Your task to perform on an android device: Open eBay Image 0: 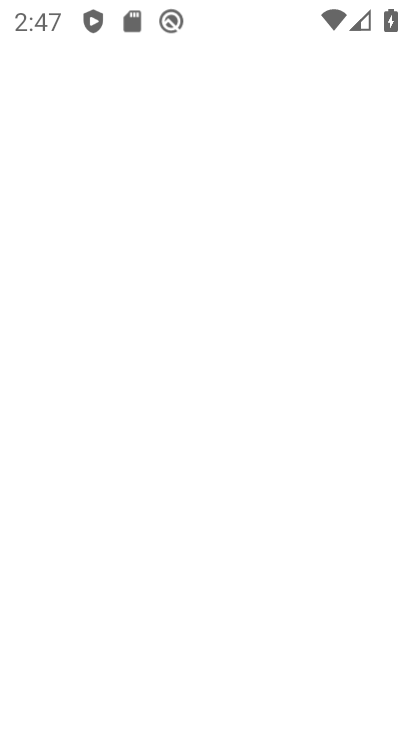
Step 0: drag from (319, 508) to (316, 318)
Your task to perform on an android device: Open eBay Image 1: 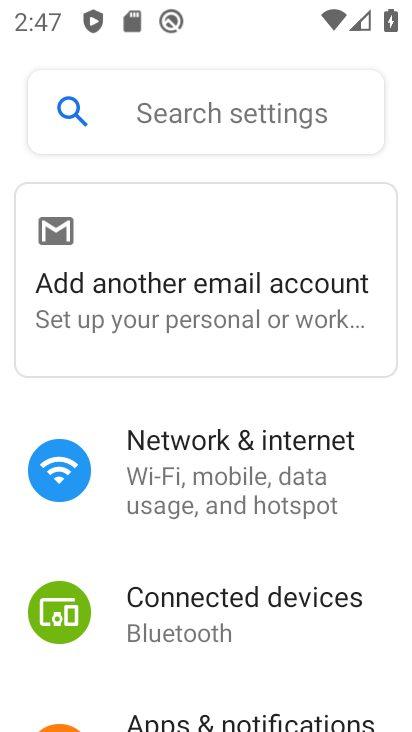
Step 1: press home button
Your task to perform on an android device: Open eBay Image 2: 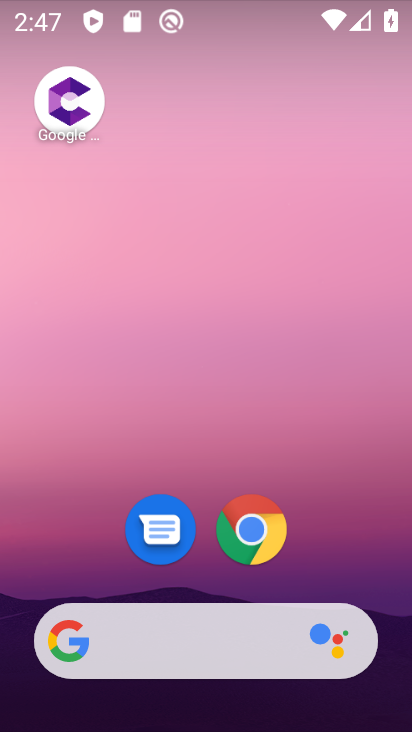
Step 2: drag from (262, 615) to (254, 183)
Your task to perform on an android device: Open eBay Image 3: 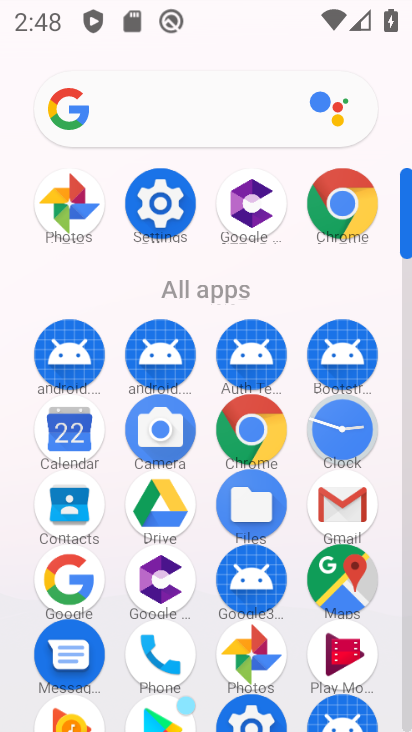
Step 3: click (353, 209)
Your task to perform on an android device: Open eBay Image 4: 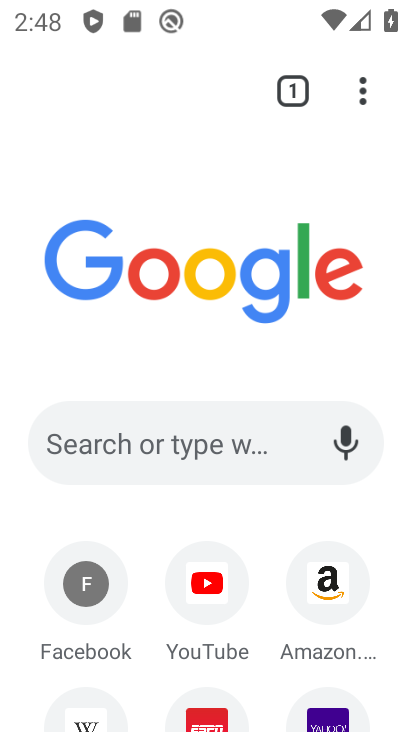
Step 4: drag from (260, 475) to (308, 232)
Your task to perform on an android device: Open eBay Image 5: 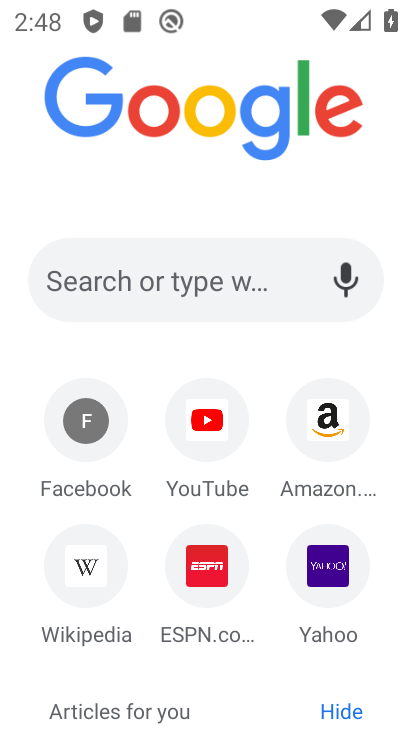
Step 5: drag from (242, 587) to (281, 351)
Your task to perform on an android device: Open eBay Image 6: 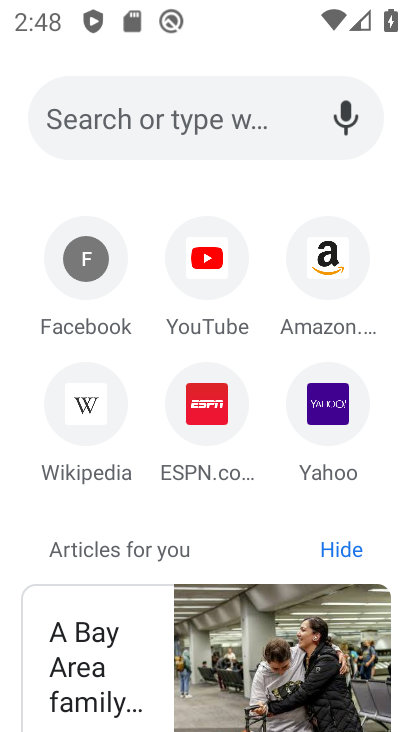
Step 6: drag from (280, 357) to (275, 731)
Your task to perform on an android device: Open eBay Image 7: 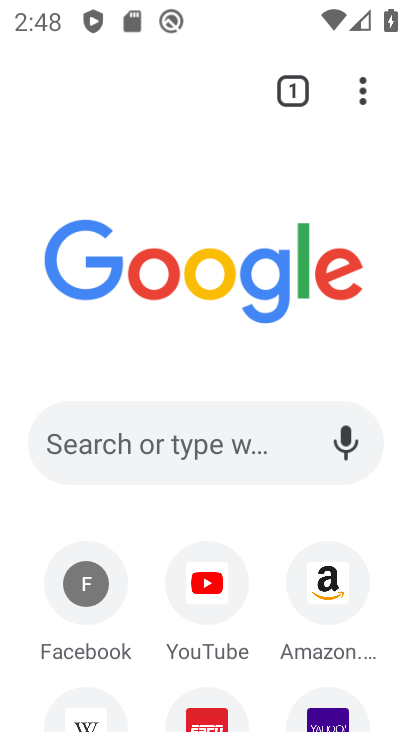
Step 7: click (213, 414)
Your task to perform on an android device: Open eBay Image 8: 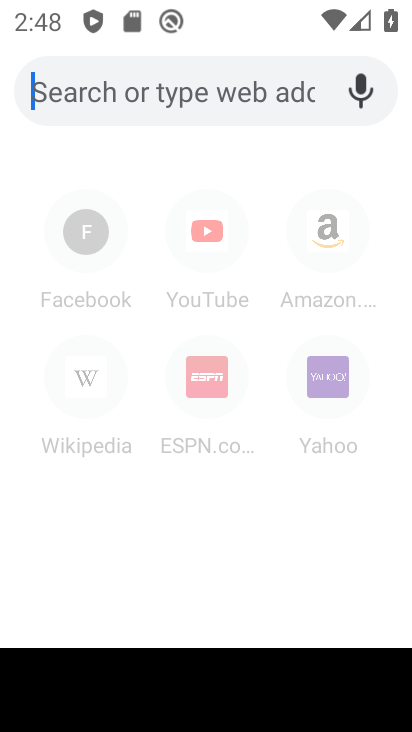
Step 8: type "ebay"
Your task to perform on an android device: Open eBay Image 9: 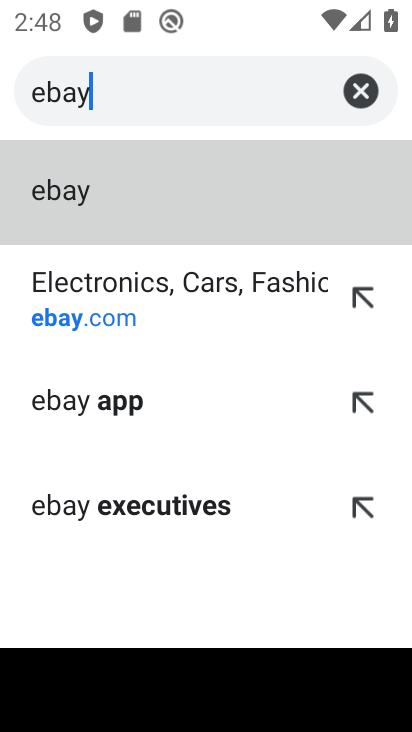
Step 9: click (197, 320)
Your task to perform on an android device: Open eBay Image 10: 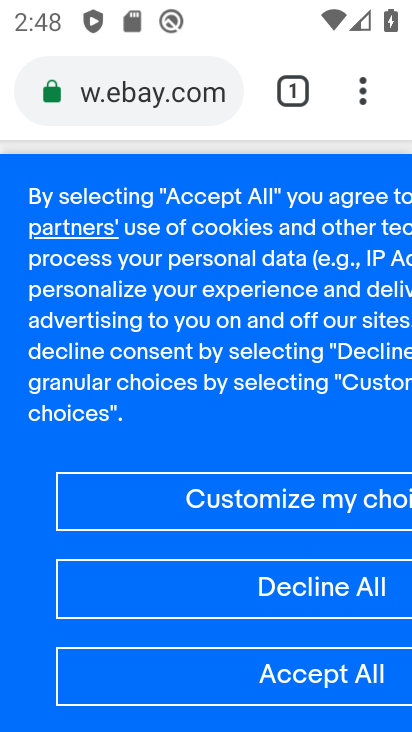
Step 10: task complete